Your task to perform on an android device: change keyboard looks Image 0: 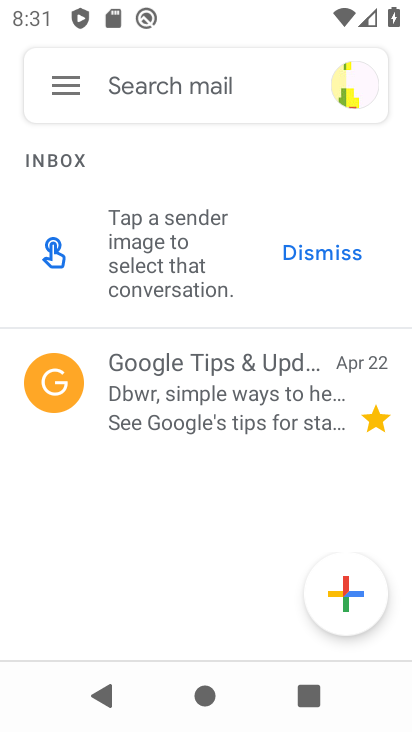
Step 0: press home button
Your task to perform on an android device: change keyboard looks Image 1: 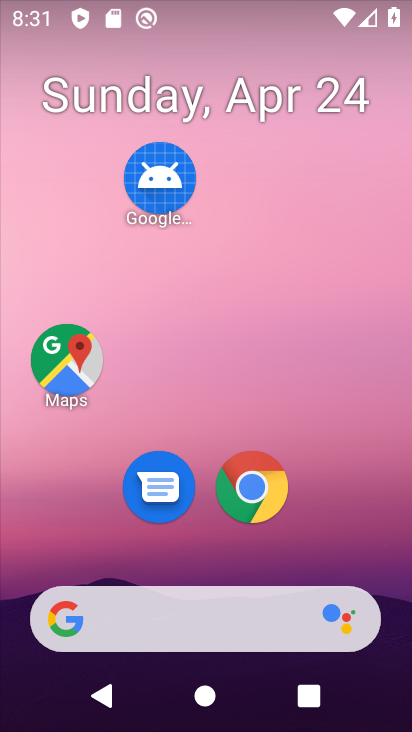
Step 1: drag from (340, 444) to (318, 104)
Your task to perform on an android device: change keyboard looks Image 2: 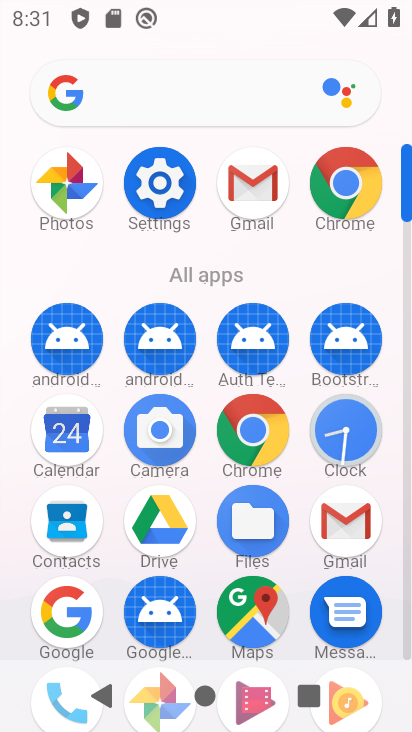
Step 2: click (159, 186)
Your task to perform on an android device: change keyboard looks Image 3: 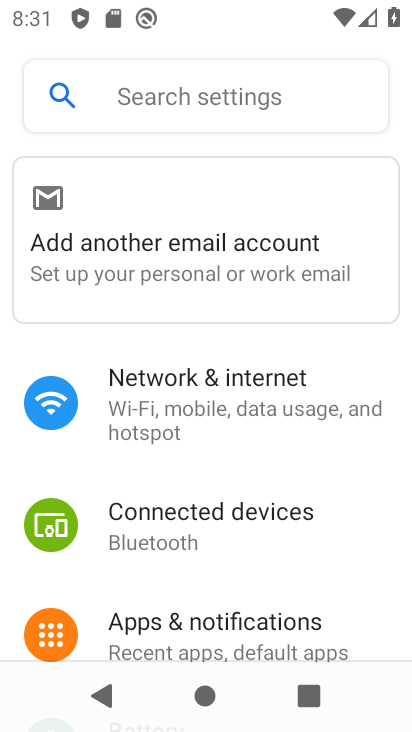
Step 3: drag from (362, 575) to (335, 70)
Your task to perform on an android device: change keyboard looks Image 4: 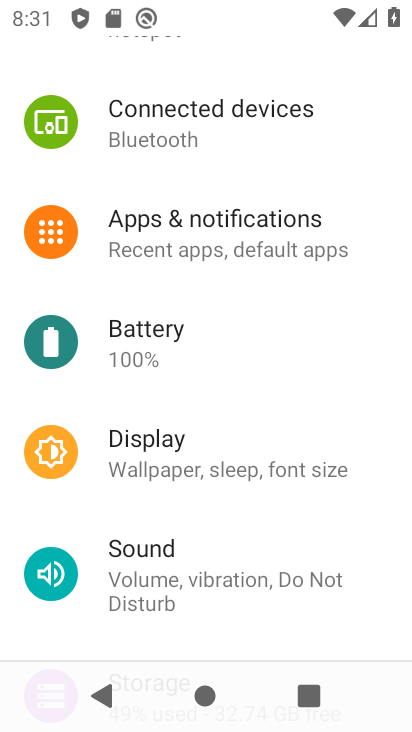
Step 4: drag from (355, 509) to (341, 84)
Your task to perform on an android device: change keyboard looks Image 5: 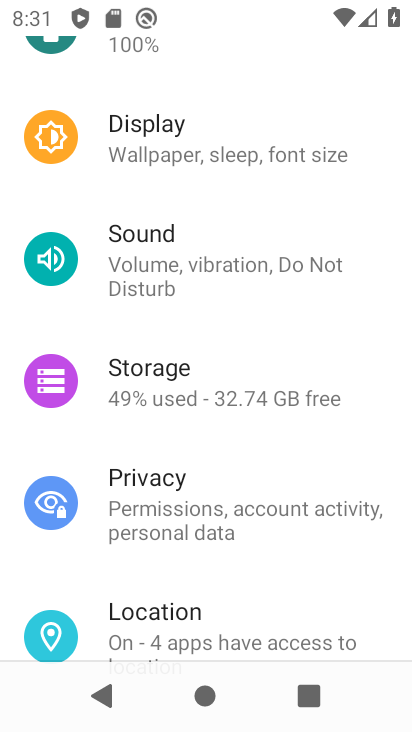
Step 5: drag from (311, 563) to (331, 103)
Your task to perform on an android device: change keyboard looks Image 6: 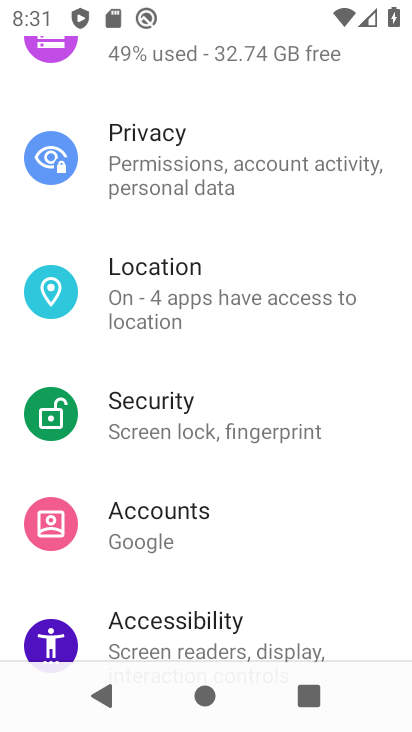
Step 6: drag from (306, 569) to (305, 149)
Your task to perform on an android device: change keyboard looks Image 7: 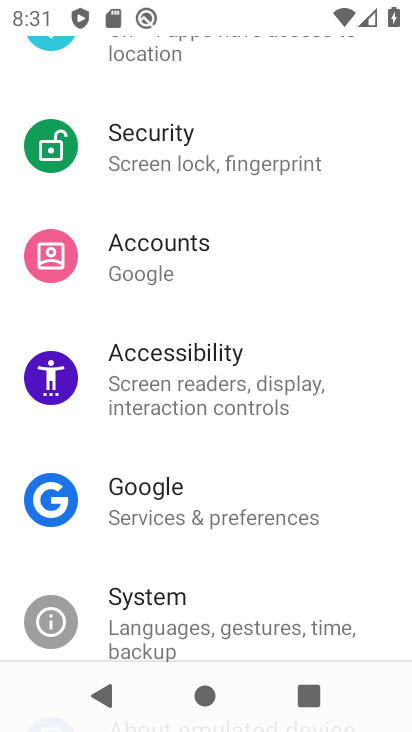
Step 7: click (183, 622)
Your task to perform on an android device: change keyboard looks Image 8: 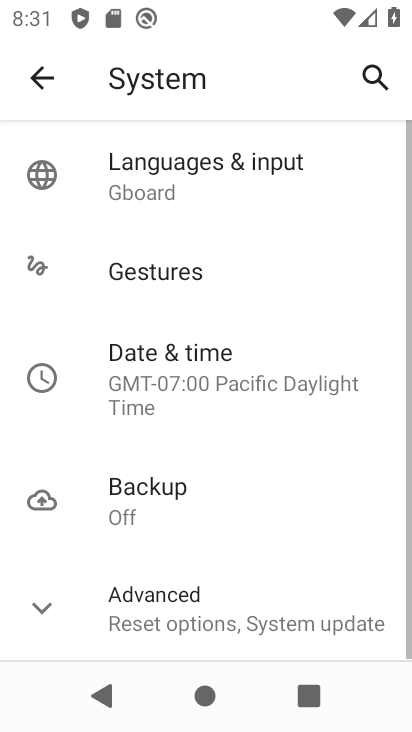
Step 8: click (145, 188)
Your task to perform on an android device: change keyboard looks Image 9: 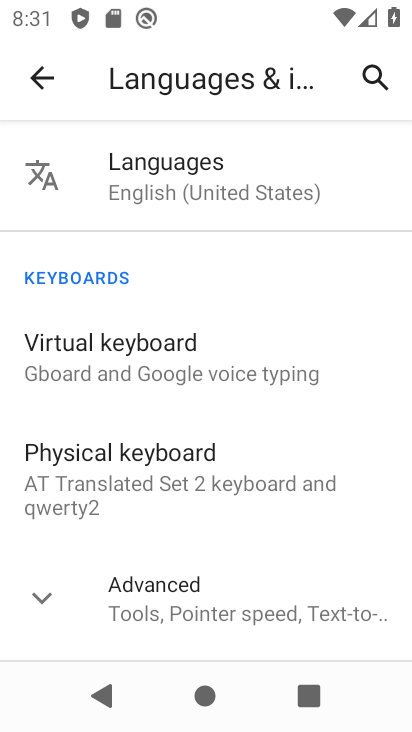
Step 9: click (124, 366)
Your task to perform on an android device: change keyboard looks Image 10: 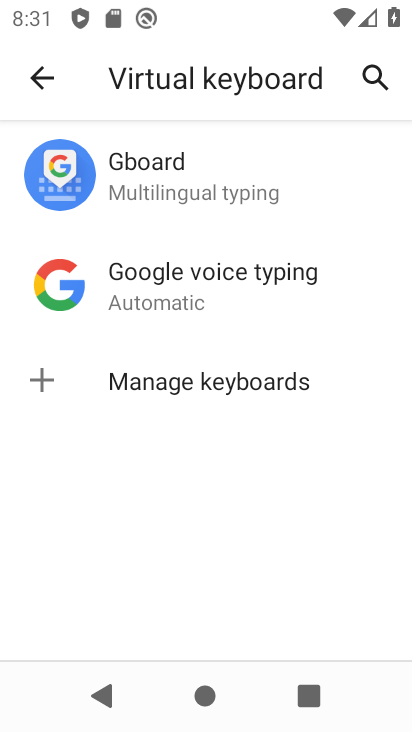
Step 10: click (185, 201)
Your task to perform on an android device: change keyboard looks Image 11: 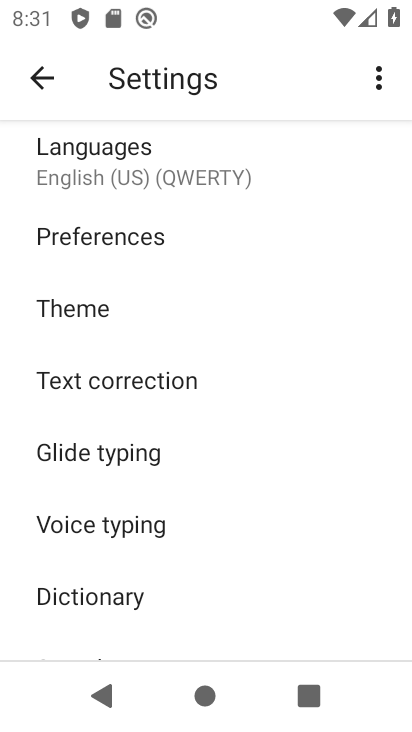
Step 11: click (58, 299)
Your task to perform on an android device: change keyboard looks Image 12: 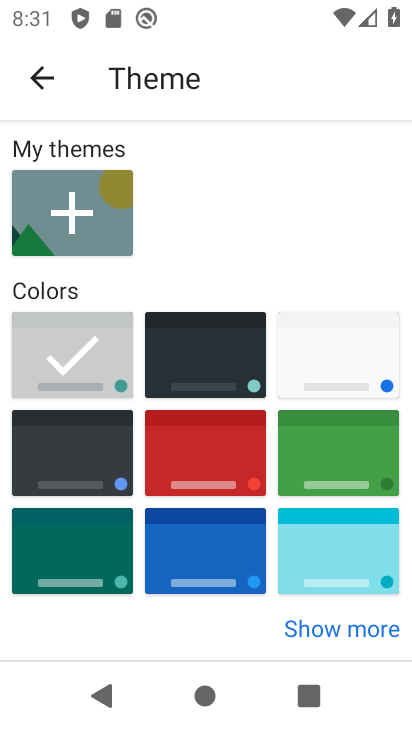
Step 12: drag from (250, 606) to (240, 249)
Your task to perform on an android device: change keyboard looks Image 13: 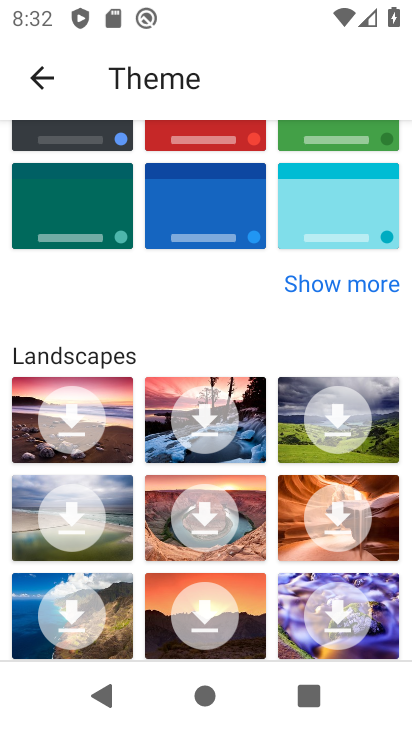
Step 13: drag from (231, 593) to (264, 323)
Your task to perform on an android device: change keyboard looks Image 14: 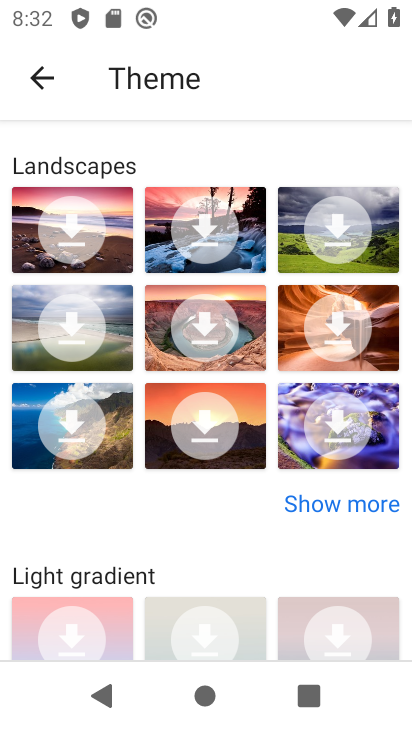
Step 14: click (333, 424)
Your task to perform on an android device: change keyboard looks Image 15: 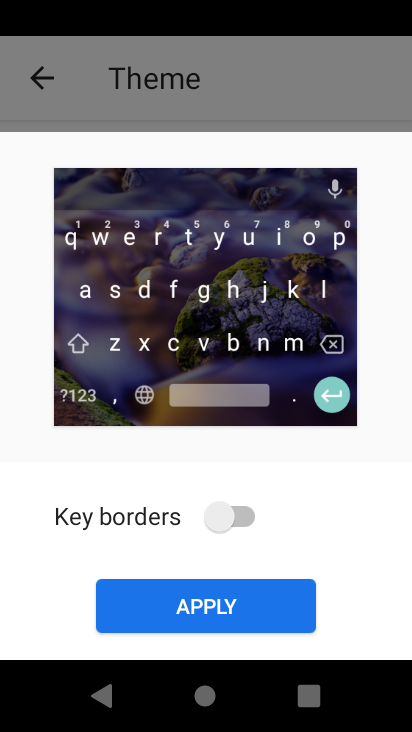
Step 15: click (226, 510)
Your task to perform on an android device: change keyboard looks Image 16: 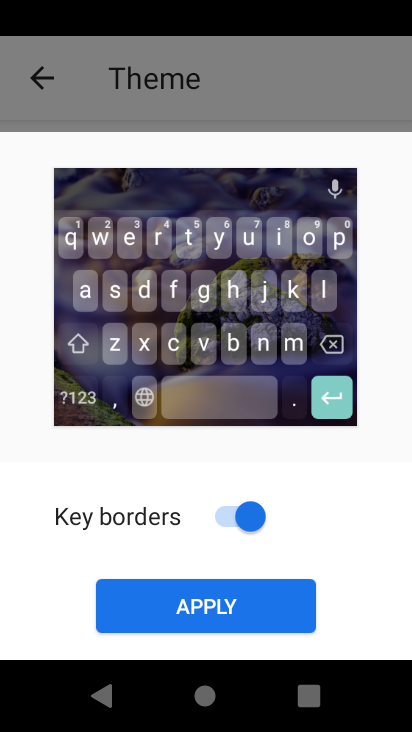
Step 16: click (228, 511)
Your task to perform on an android device: change keyboard looks Image 17: 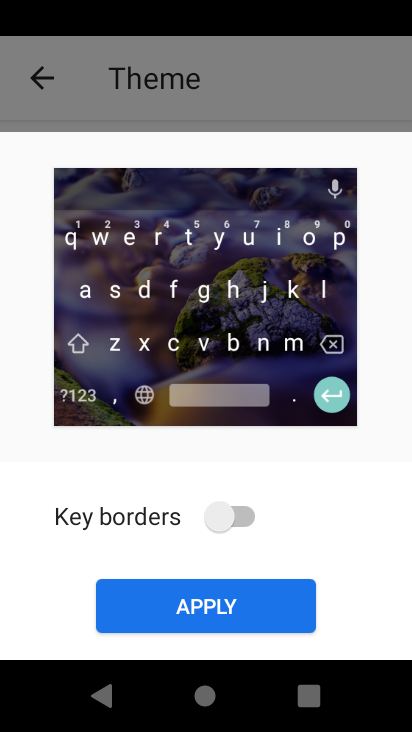
Step 17: click (219, 620)
Your task to perform on an android device: change keyboard looks Image 18: 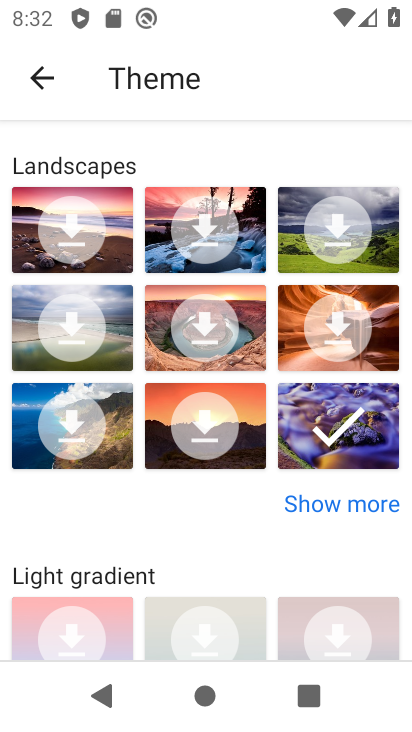
Step 18: task complete